Your task to perform on an android device: Open settings Image 0: 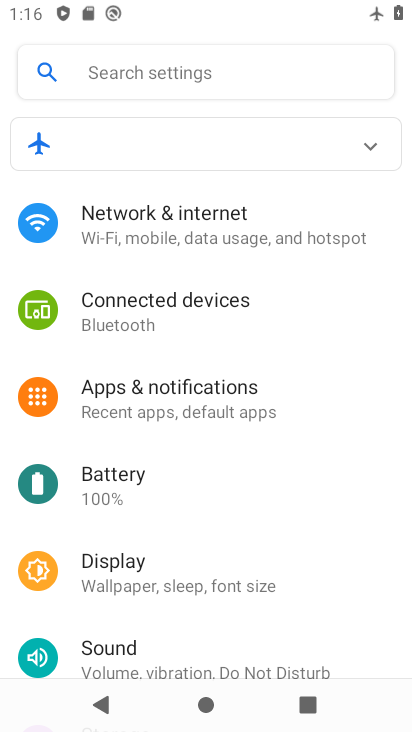
Step 0: drag from (220, 596) to (262, 175)
Your task to perform on an android device: Open settings Image 1: 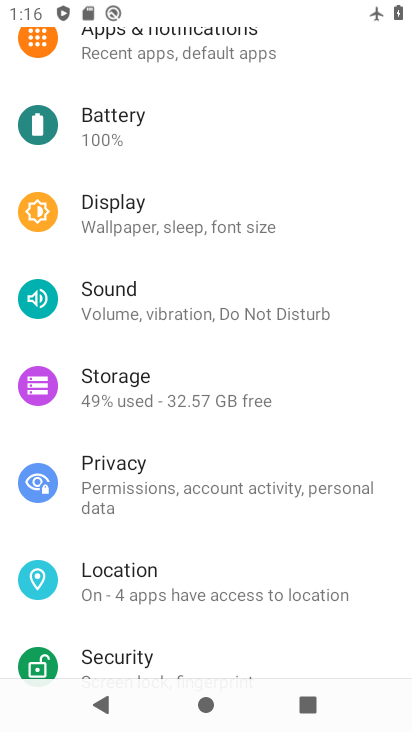
Step 1: task complete